Your task to perform on an android device: empty trash in the gmail app Image 0: 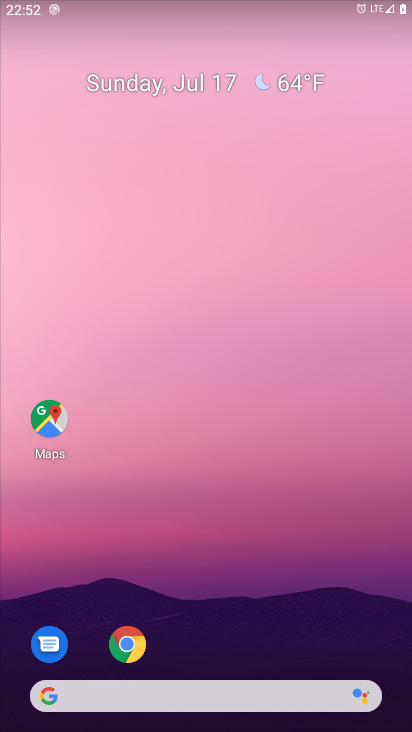
Step 0: press home button
Your task to perform on an android device: empty trash in the gmail app Image 1: 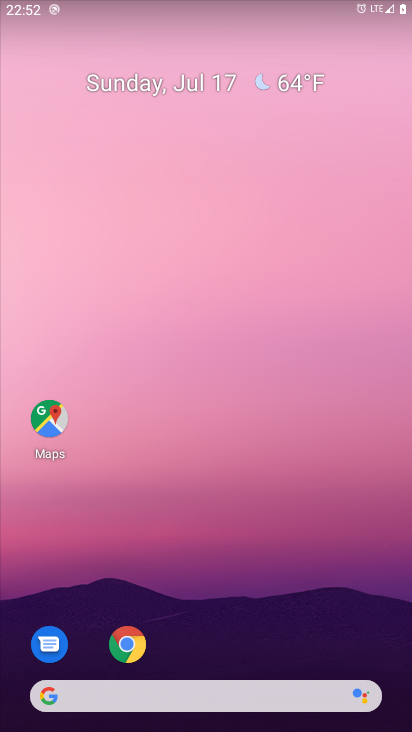
Step 1: drag from (279, 632) to (254, 100)
Your task to perform on an android device: empty trash in the gmail app Image 2: 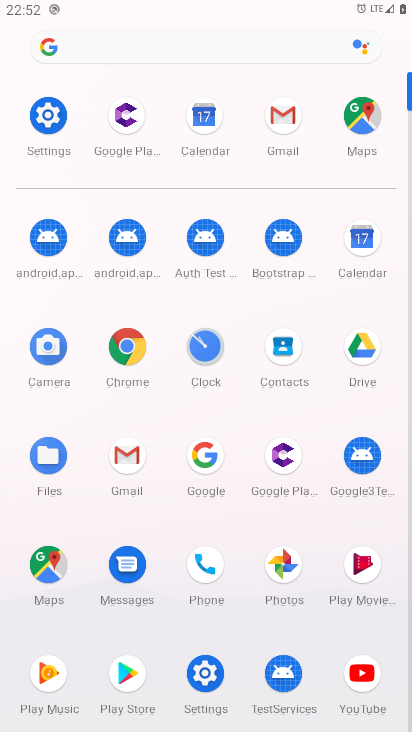
Step 2: click (278, 114)
Your task to perform on an android device: empty trash in the gmail app Image 3: 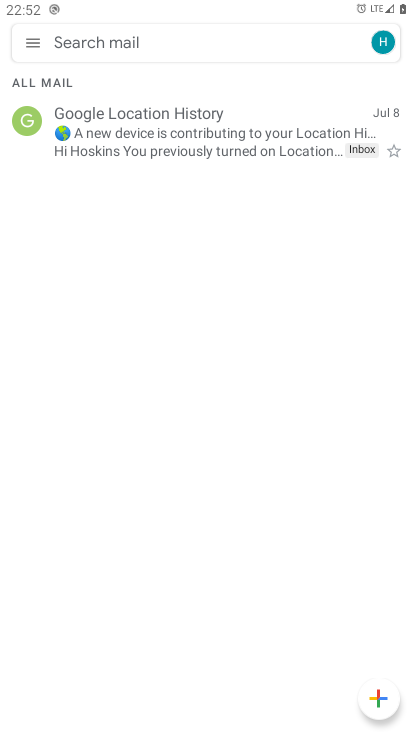
Step 3: click (25, 47)
Your task to perform on an android device: empty trash in the gmail app Image 4: 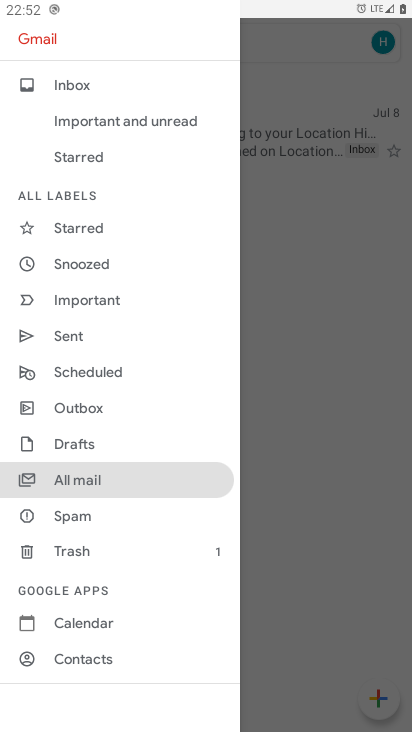
Step 4: click (73, 551)
Your task to perform on an android device: empty trash in the gmail app Image 5: 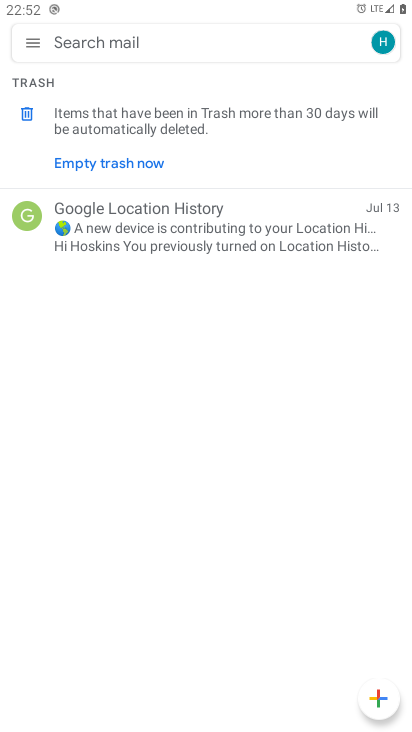
Step 5: click (90, 165)
Your task to perform on an android device: empty trash in the gmail app Image 6: 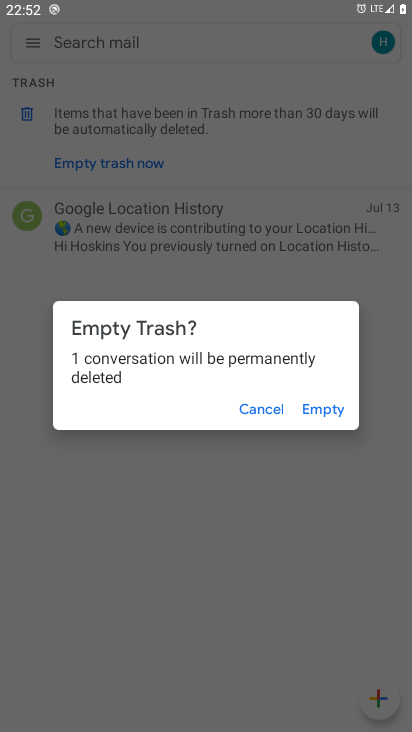
Step 6: click (336, 413)
Your task to perform on an android device: empty trash in the gmail app Image 7: 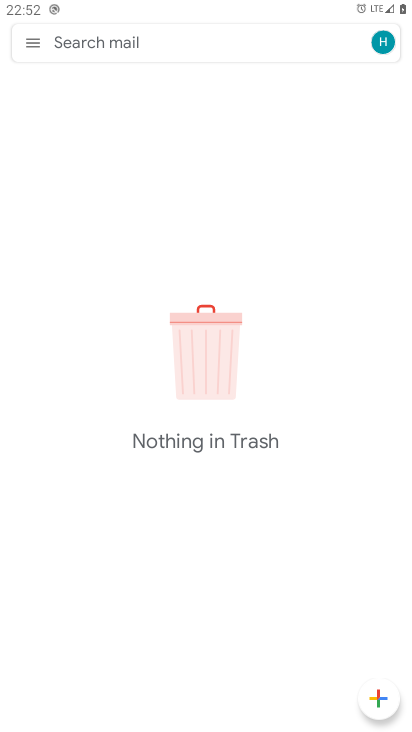
Step 7: task complete